Your task to perform on an android device: change the clock display to show seconds Image 0: 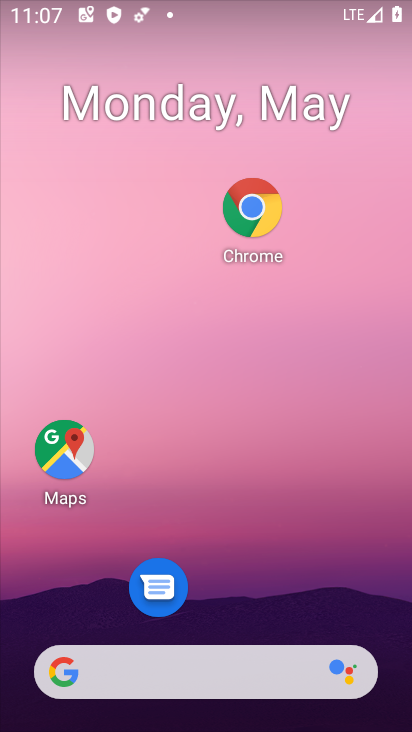
Step 0: drag from (270, 590) to (219, 190)
Your task to perform on an android device: change the clock display to show seconds Image 1: 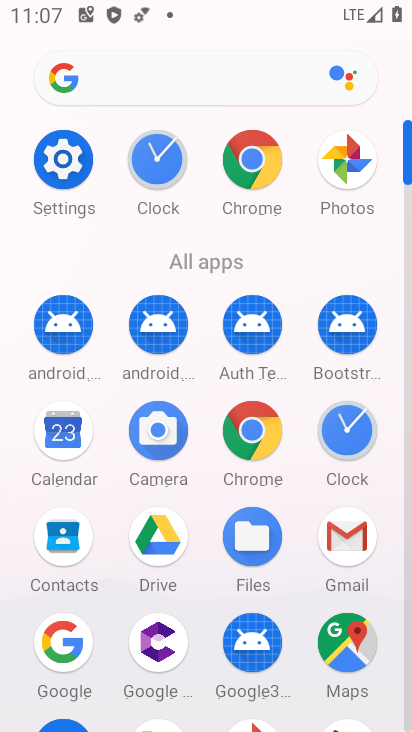
Step 1: click (338, 416)
Your task to perform on an android device: change the clock display to show seconds Image 2: 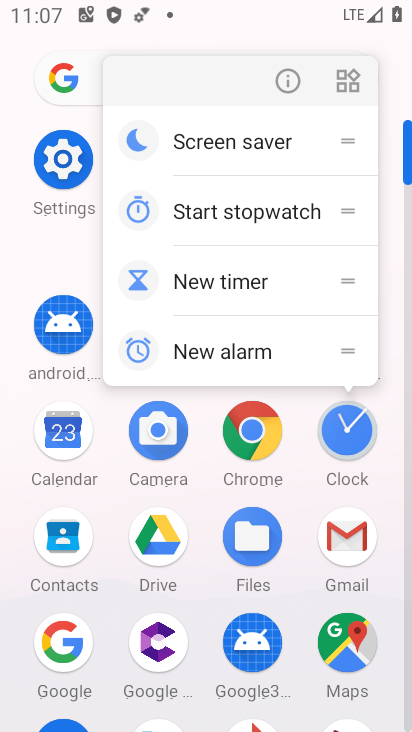
Step 2: click (233, 281)
Your task to perform on an android device: change the clock display to show seconds Image 3: 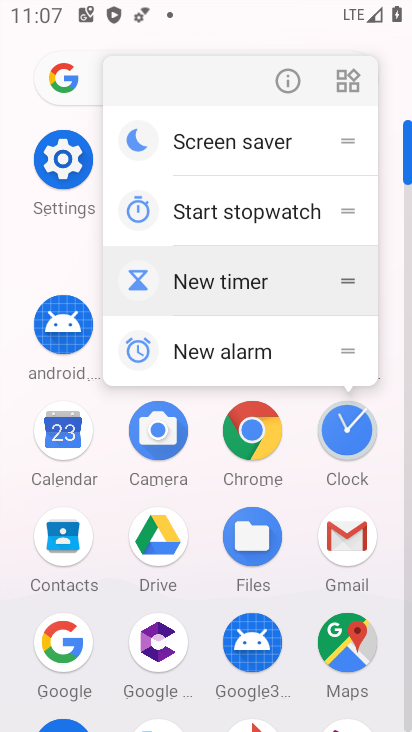
Step 3: click (238, 277)
Your task to perform on an android device: change the clock display to show seconds Image 4: 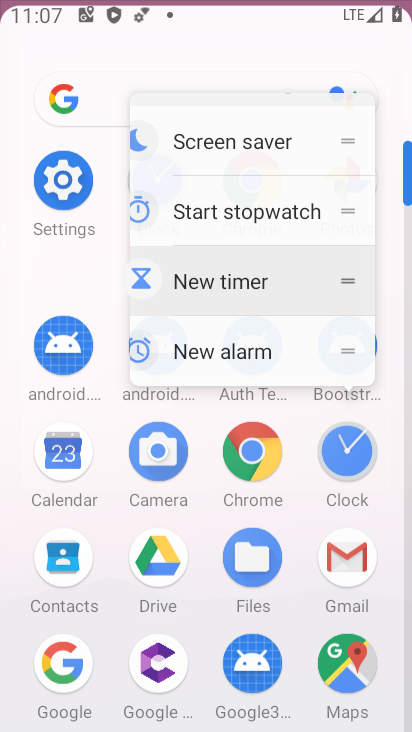
Step 4: click (238, 277)
Your task to perform on an android device: change the clock display to show seconds Image 5: 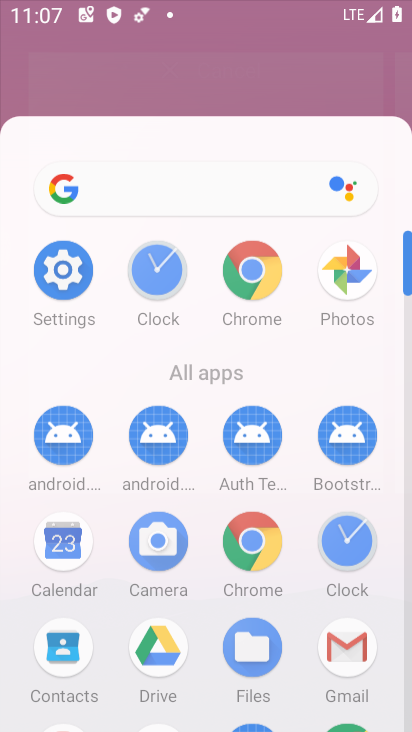
Step 5: click (239, 277)
Your task to perform on an android device: change the clock display to show seconds Image 6: 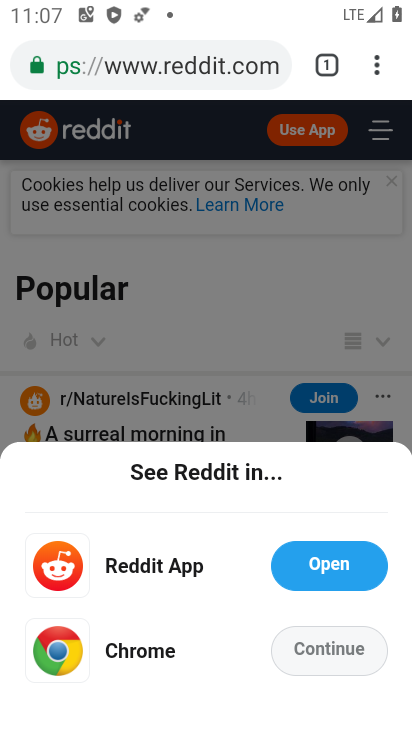
Step 6: press back button
Your task to perform on an android device: change the clock display to show seconds Image 7: 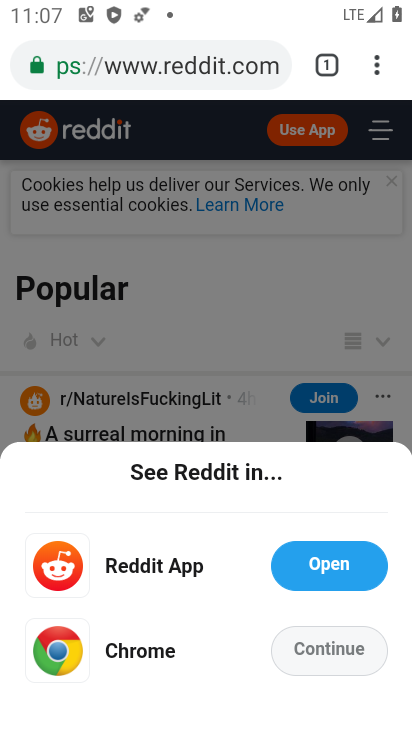
Step 7: press back button
Your task to perform on an android device: change the clock display to show seconds Image 8: 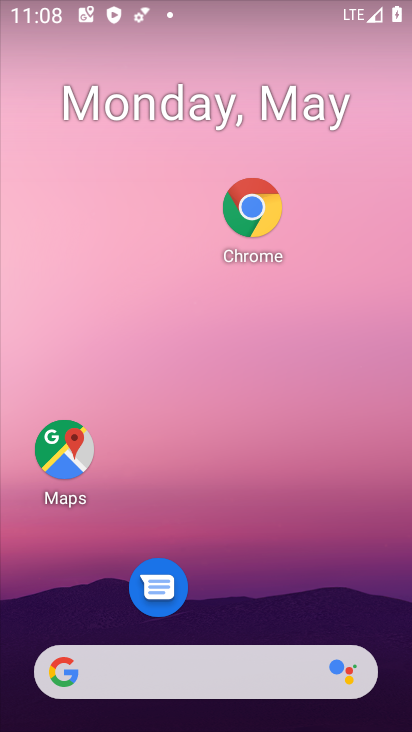
Step 8: drag from (304, 672) to (236, 88)
Your task to perform on an android device: change the clock display to show seconds Image 9: 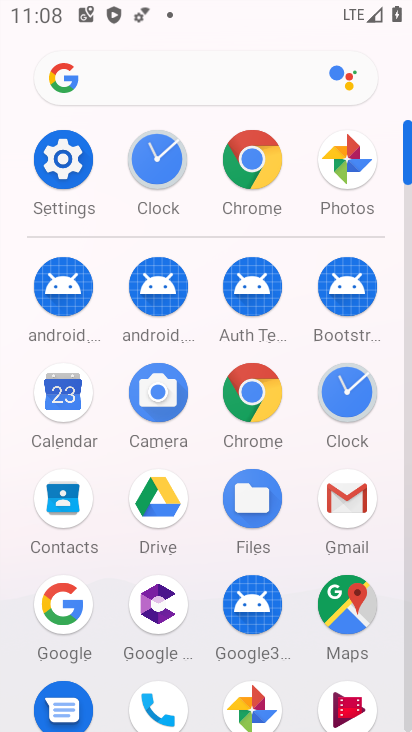
Step 9: click (334, 394)
Your task to perform on an android device: change the clock display to show seconds Image 10: 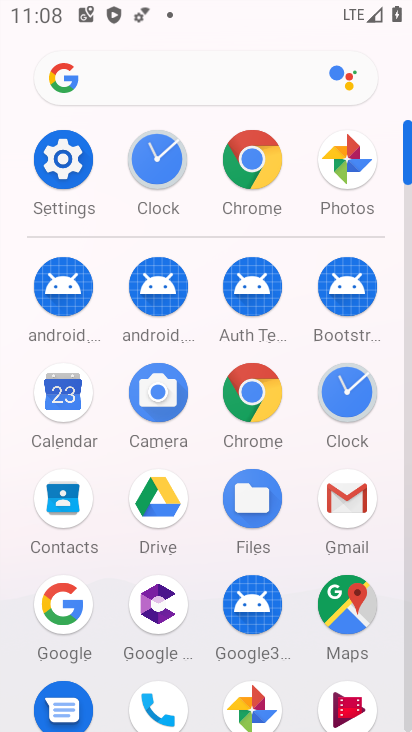
Step 10: click (334, 394)
Your task to perform on an android device: change the clock display to show seconds Image 11: 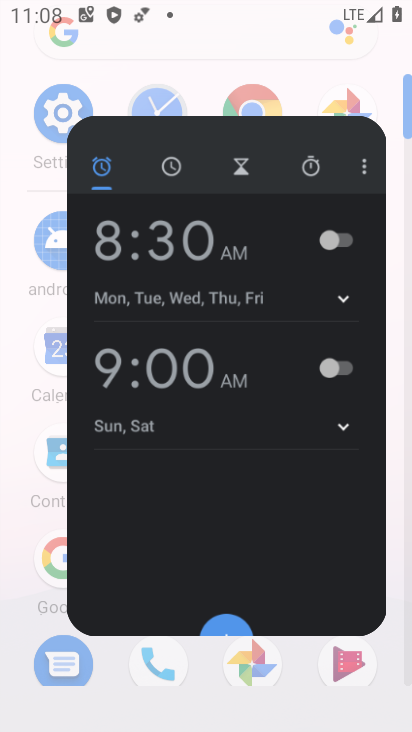
Step 11: click (334, 395)
Your task to perform on an android device: change the clock display to show seconds Image 12: 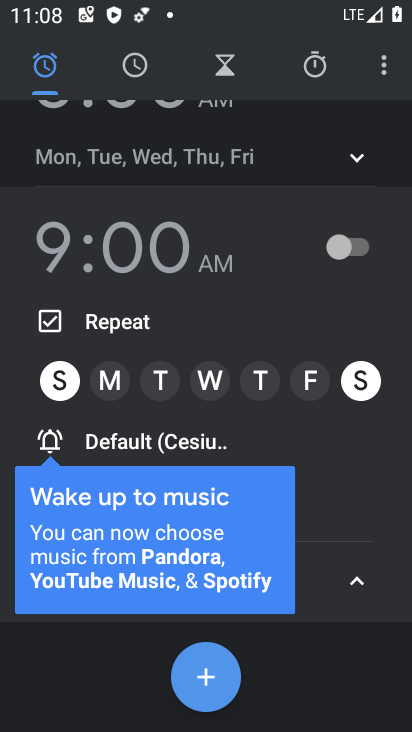
Step 12: click (381, 64)
Your task to perform on an android device: change the clock display to show seconds Image 13: 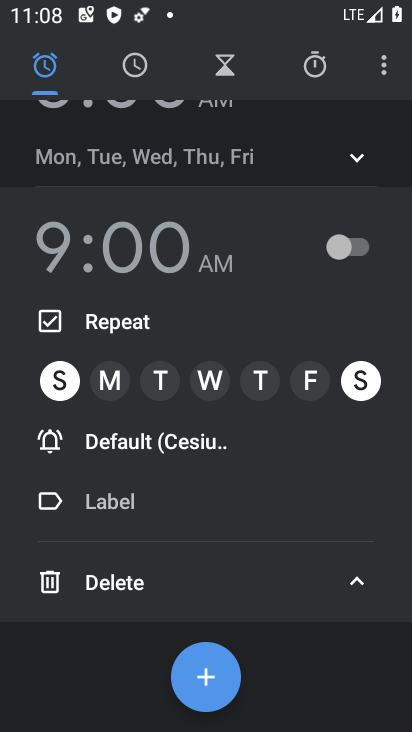
Step 13: click (379, 71)
Your task to perform on an android device: change the clock display to show seconds Image 14: 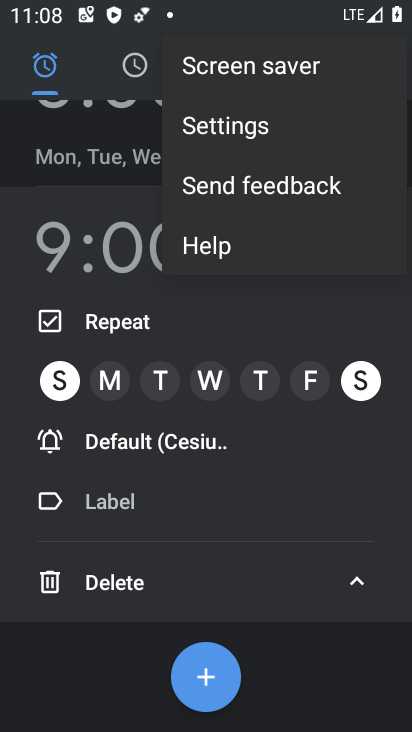
Step 14: click (241, 111)
Your task to perform on an android device: change the clock display to show seconds Image 15: 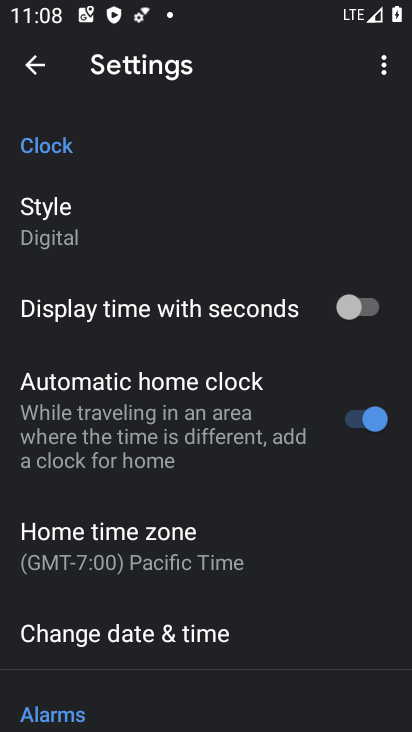
Step 15: click (356, 302)
Your task to perform on an android device: change the clock display to show seconds Image 16: 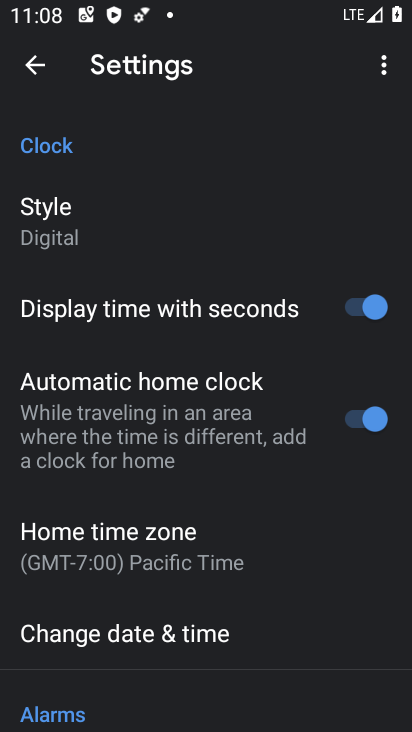
Step 16: task complete